Your task to perform on an android device: Open Chrome and go to the settings page Image 0: 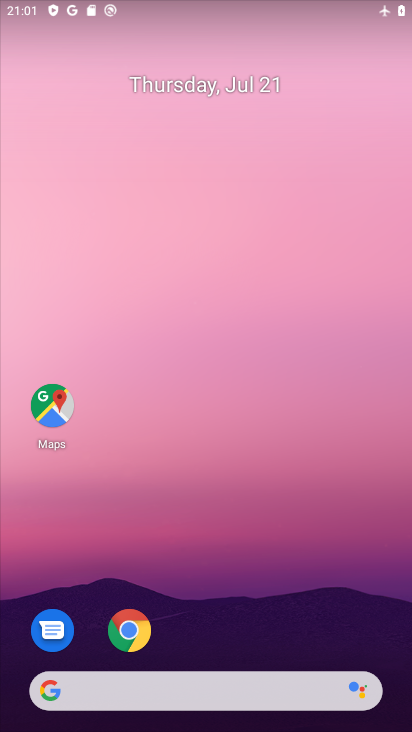
Step 0: drag from (271, 635) to (246, 0)
Your task to perform on an android device: Open Chrome and go to the settings page Image 1: 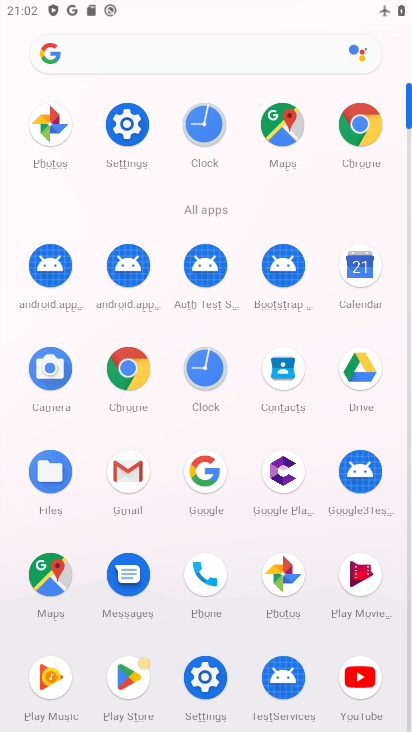
Step 1: click (360, 127)
Your task to perform on an android device: Open Chrome and go to the settings page Image 2: 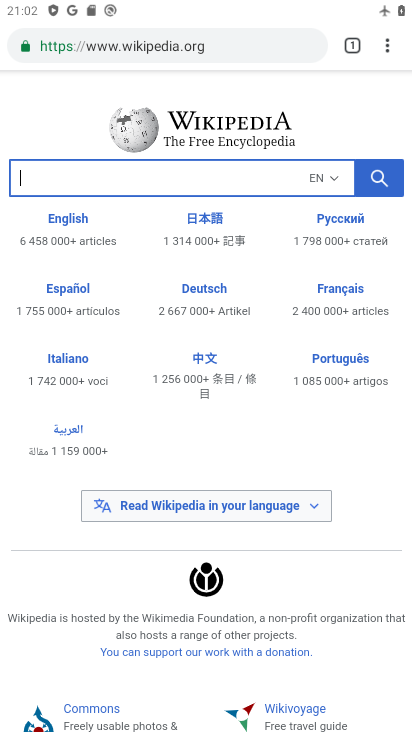
Step 2: task complete